Your task to perform on an android device: Open Google Chrome and click the shortcut for Amazon.com Image 0: 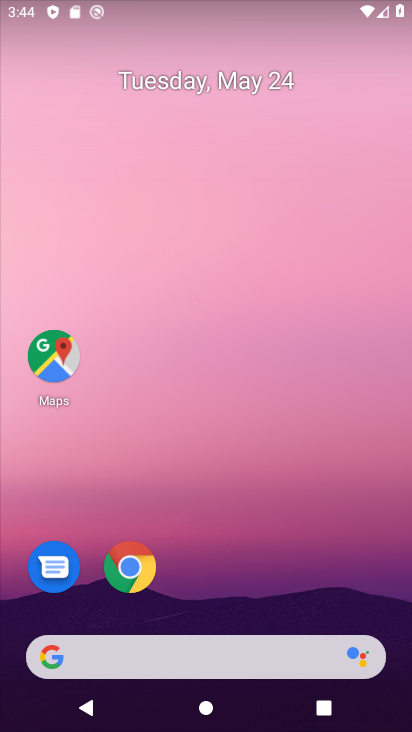
Step 0: click (132, 578)
Your task to perform on an android device: Open Google Chrome and click the shortcut for Amazon.com Image 1: 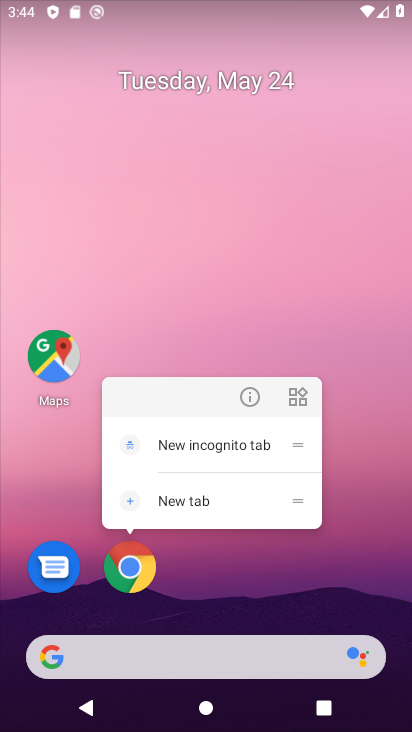
Step 1: click (128, 568)
Your task to perform on an android device: Open Google Chrome and click the shortcut for Amazon.com Image 2: 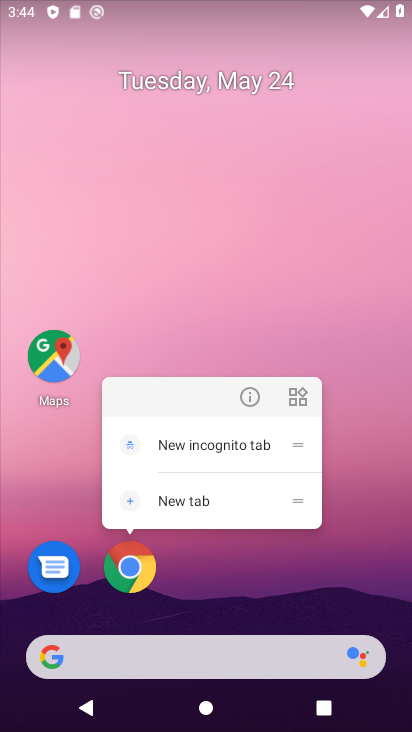
Step 2: click (128, 568)
Your task to perform on an android device: Open Google Chrome and click the shortcut for Amazon.com Image 3: 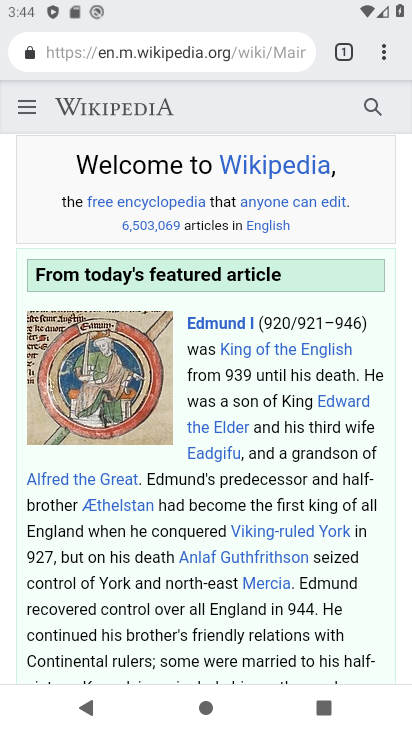
Step 3: click (382, 58)
Your task to perform on an android device: Open Google Chrome and click the shortcut for Amazon.com Image 4: 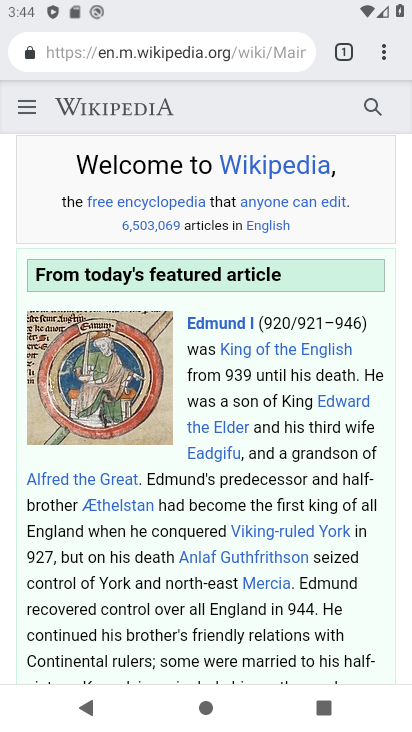
Step 4: click (384, 54)
Your task to perform on an android device: Open Google Chrome and click the shortcut for Amazon.com Image 5: 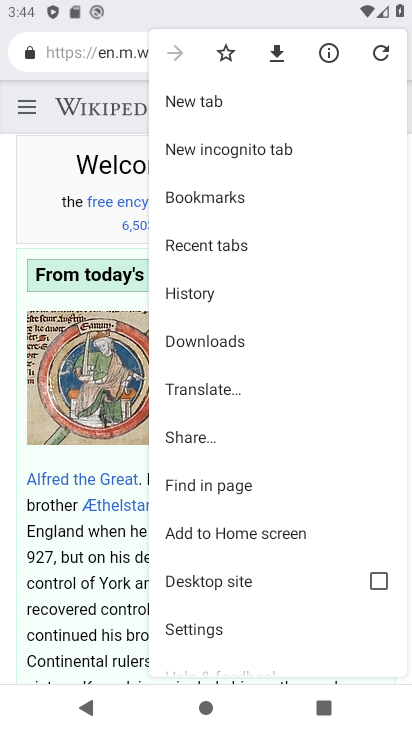
Step 5: click (221, 106)
Your task to perform on an android device: Open Google Chrome and click the shortcut for Amazon.com Image 6: 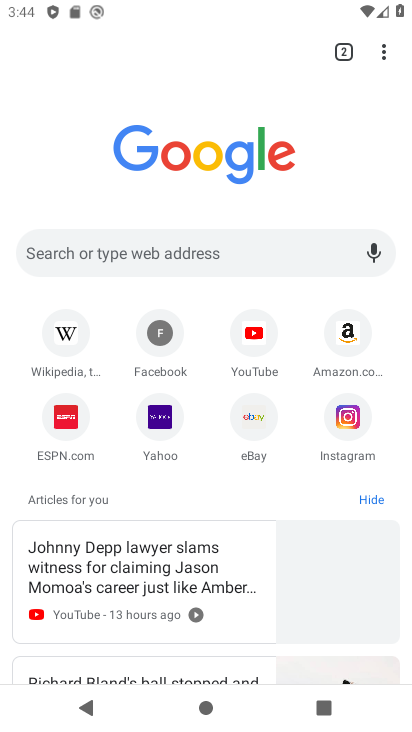
Step 6: click (349, 340)
Your task to perform on an android device: Open Google Chrome and click the shortcut for Amazon.com Image 7: 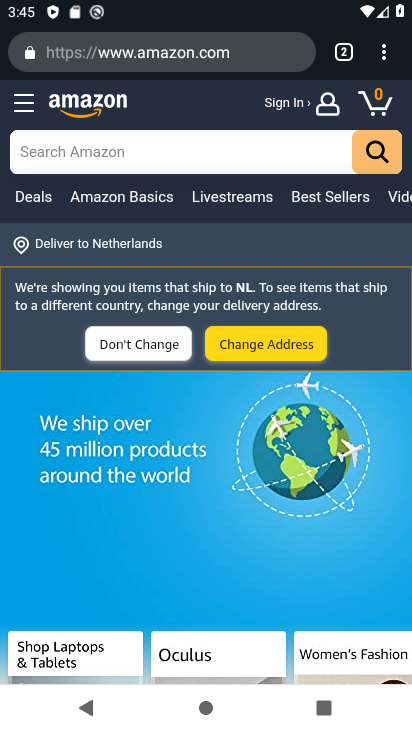
Step 7: task complete